Your task to perform on an android device: Open the Play Movies app and select the watchlist tab. Image 0: 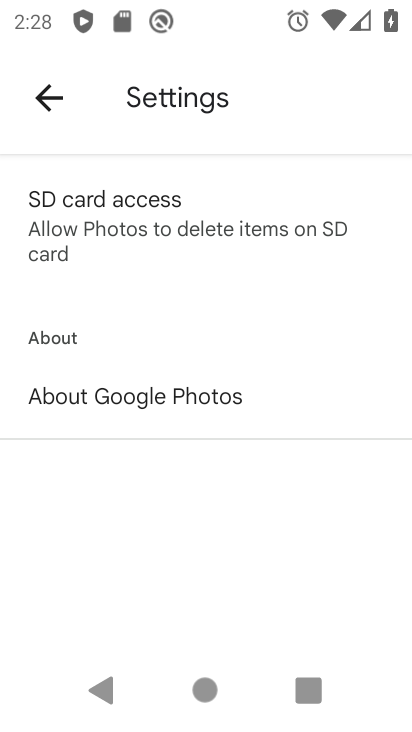
Step 0: press home button
Your task to perform on an android device: Open the Play Movies app and select the watchlist tab. Image 1: 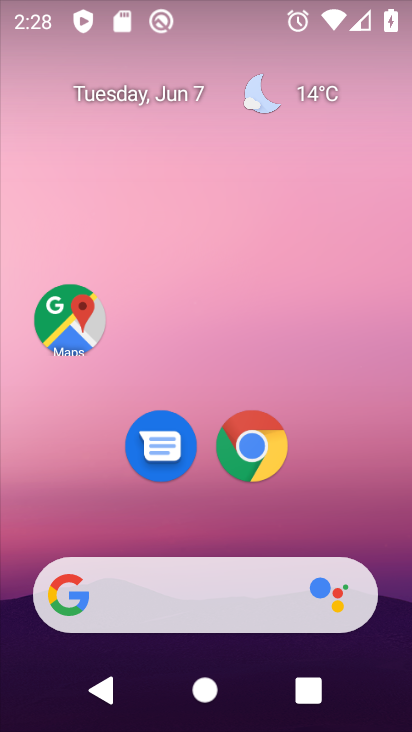
Step 1: drag from (388, 597) to (342, 61)
Your task to perform on an android device: Open the Play Movies app and select the watchlist tab. Image 2: 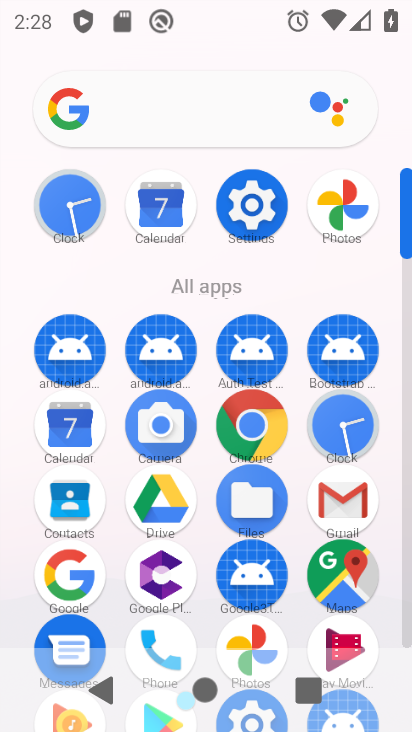
Step 2: click (406, 628)
Your task to perform on an android device: Open the Play Movies app and select the watchlist tab. Image 3: 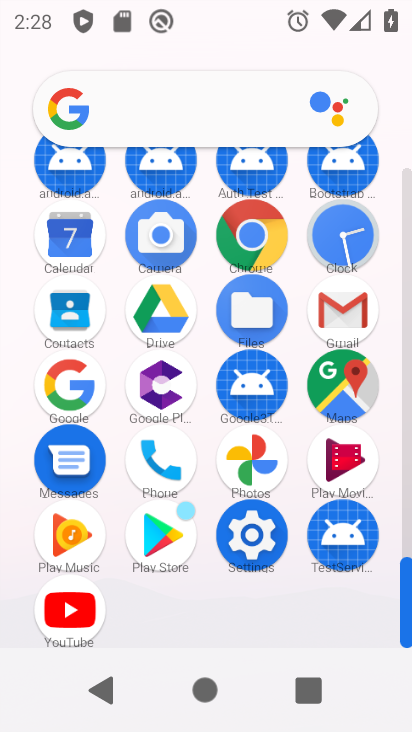
Step 3: click (350, 455)
Your task to perform on an android device: Open the Play Movies app and select the watchlist tab. Image 4: 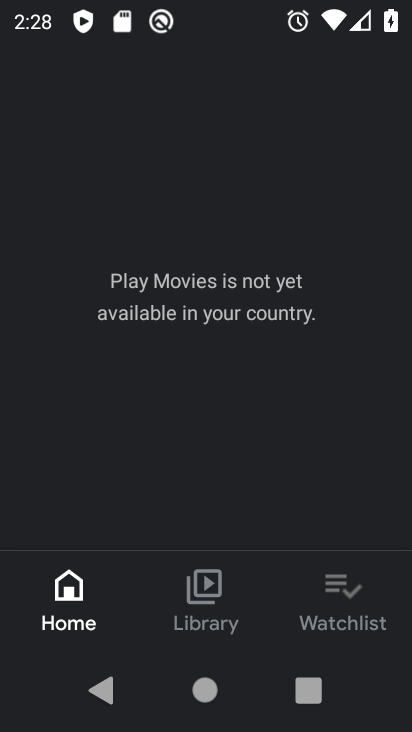
Step 4: click (336, 597)
Your task to perform on an android device: Open the Play Movies app and select the watchlist tab. Image 5: 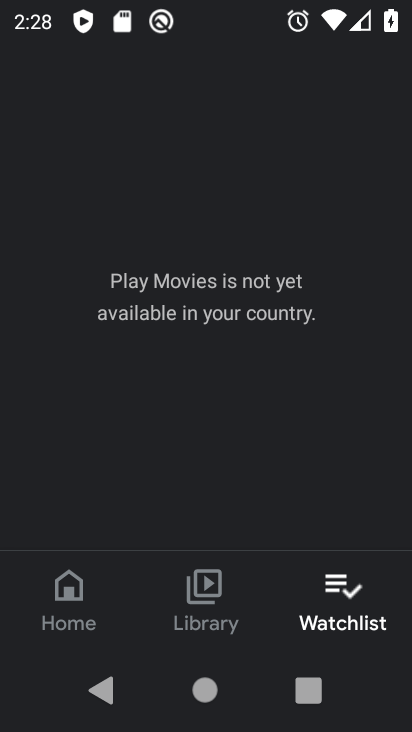
Step 5: task complete